Your task to perform on an android device: Show me popular videos on Youtube Image 0: 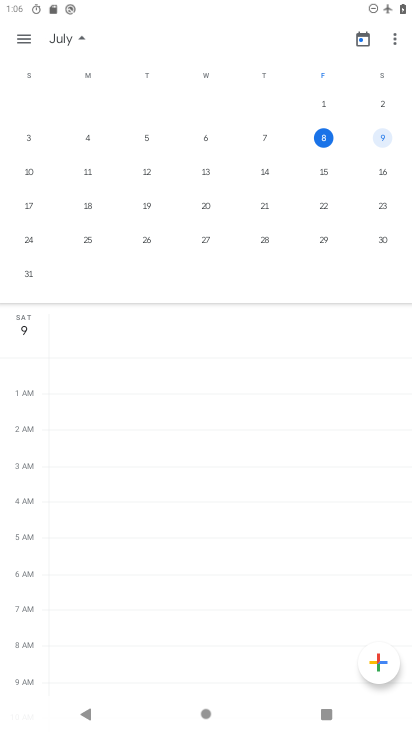
Step 0: press home button
Your task to perform on an android device: Show me popular videos on Youtube Image 1: 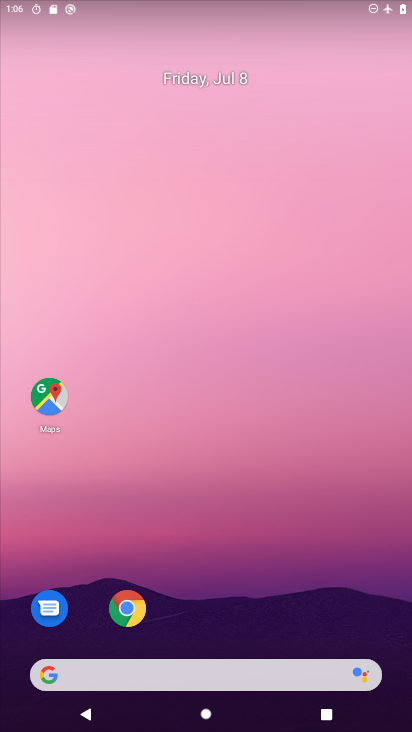
Step 1: drag from (253, 718) to (250, 47)
Your task to perform on an android device: Show me popular videos on Youtube Image 2: 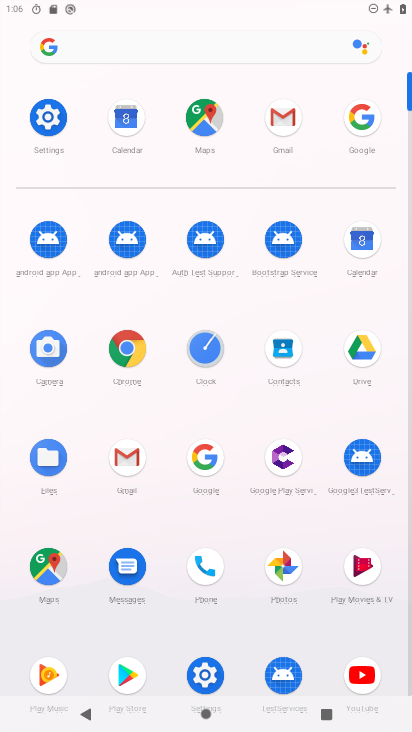
Step 2: click (371, 672)
Your task to perform on an android device: Show me popular videos on Youtube Image 3: 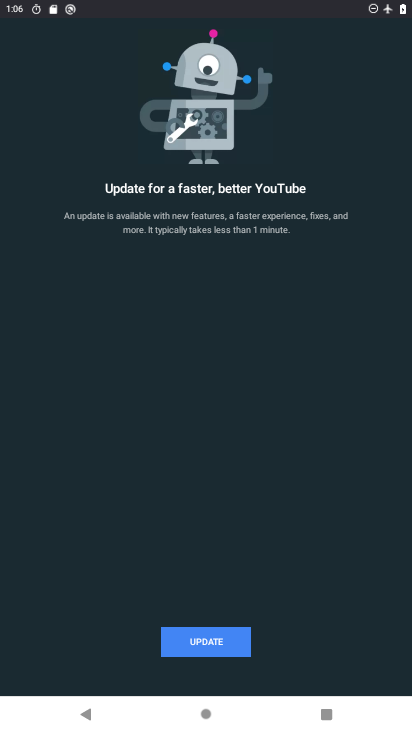
Step 3: task complete